Your task to perform on an android device: change notification settings in the gmail app Image 0: 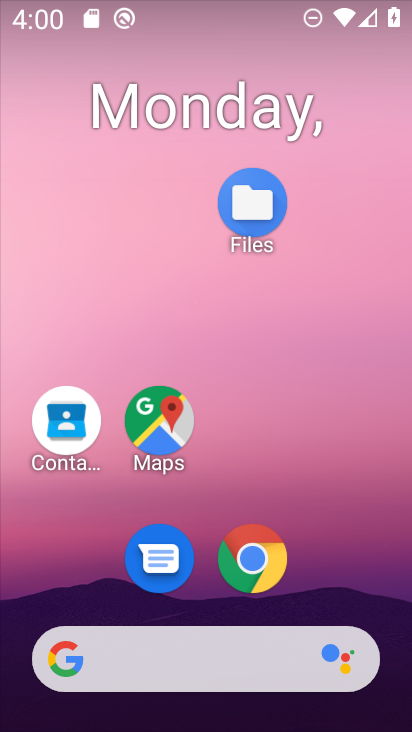
Step 0: drag from (148, 648) to (163, 10)
Your task to perform on an android device: change notification settings in the gmail app Image 1: 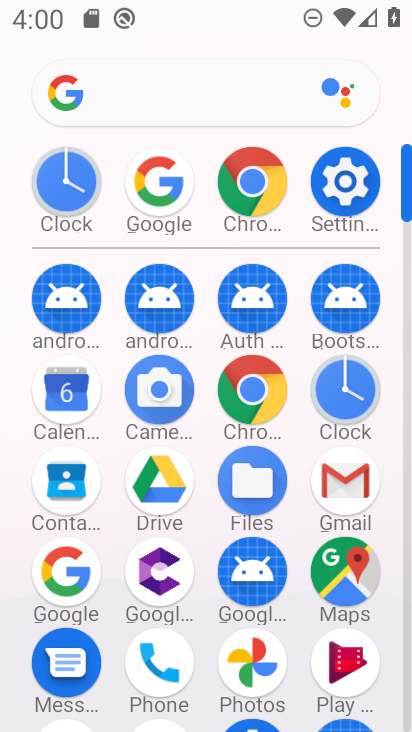
Step 1: click (341, 492)
Your task to perform on an android device: change notification settings in the gmail app Image 2: 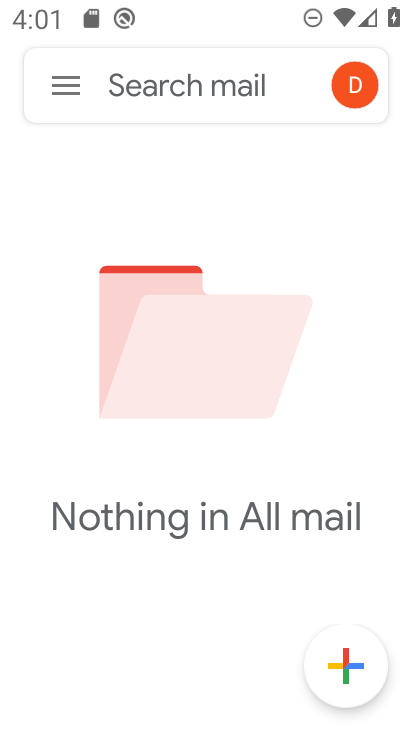
Step 2: click (63, 90)
Your task to perform on an android device: change notification settings in the gmail app Image 3: 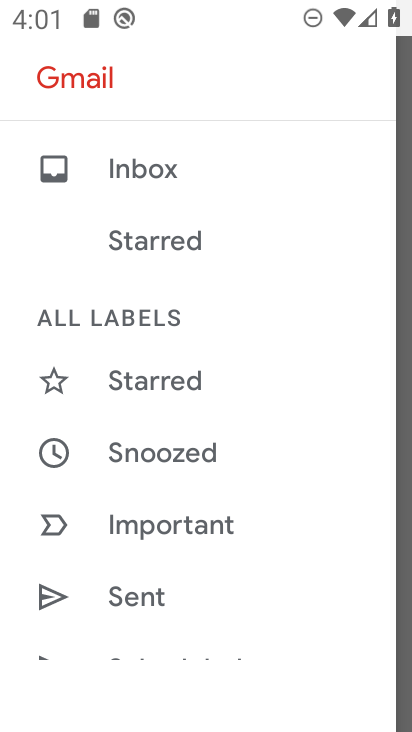
Step 3: drag from (183, 529) to (221, 1)
Your task to perform on an android device: change notification settings in the gmail app Image 4: 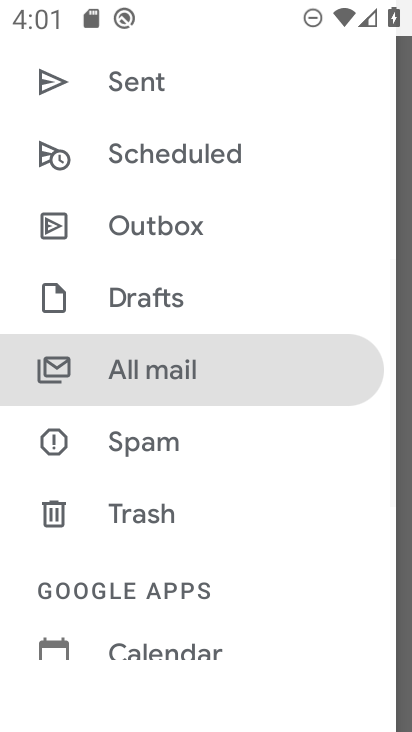
Step 4: drag from (183, 492) to (234, 44)
Your task to perform on an android device: change notification settings in the gmail app Image 5: 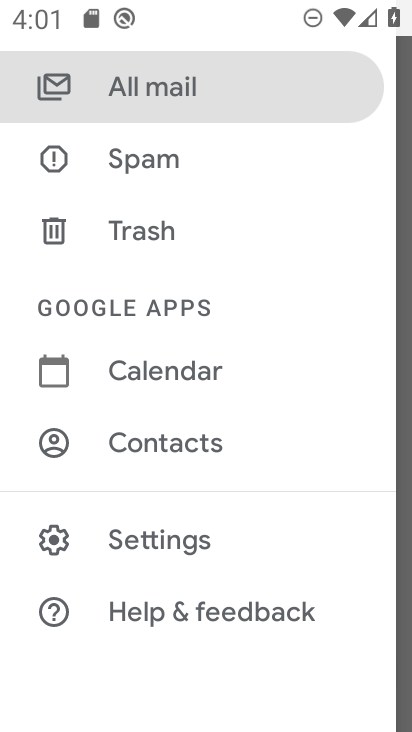
Step 5: click (163, 544)
Your task to perform on an android device: change notification settings in the gmail app Image 6: 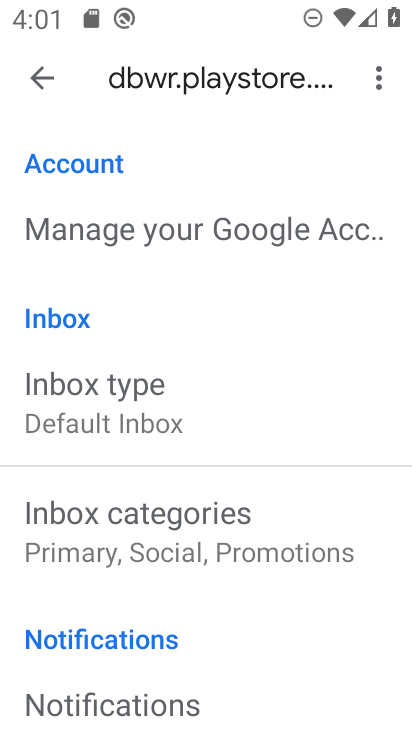
Step 6: click (49, 55)
Your task to perform on an android device: change notification settings in the gmail app Image 7: 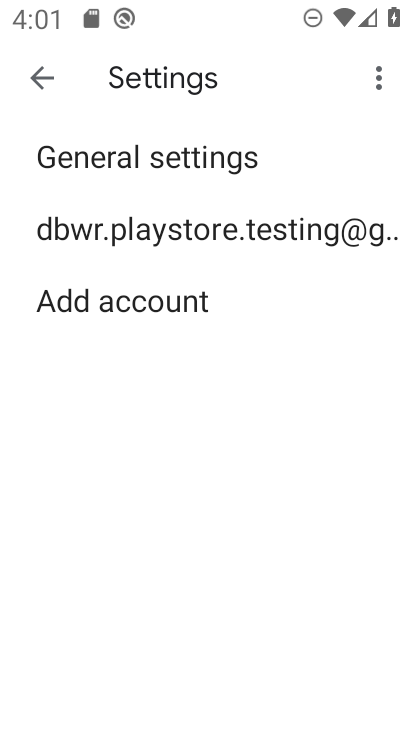
Step 7: click (126, 160)
Your task to perform on an android device: change notification settings in the gmail app Image 8: 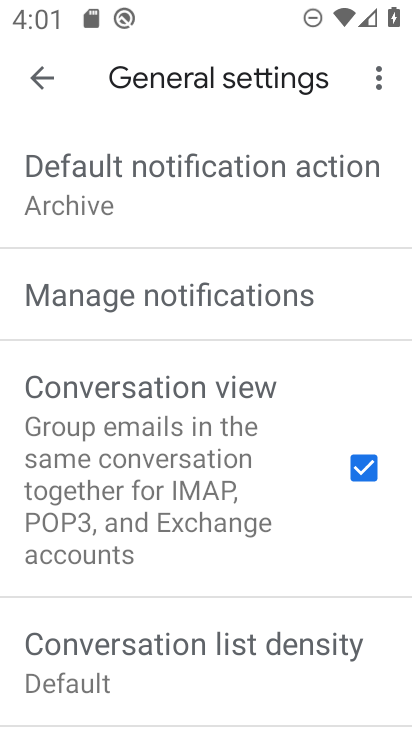
Step 8: click (114, 291)
Your task to perform on an android device: change notification settings in the gmail app Image 9: 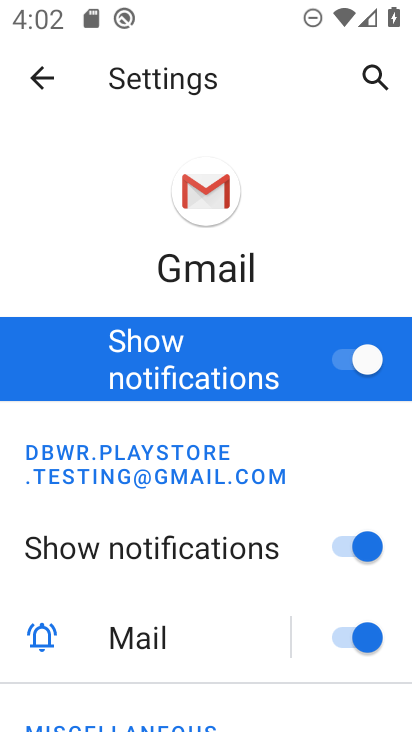
Step 9: click (308, 366)
Your task to perform on an android device: change notification settings in the gmail app Image 10: 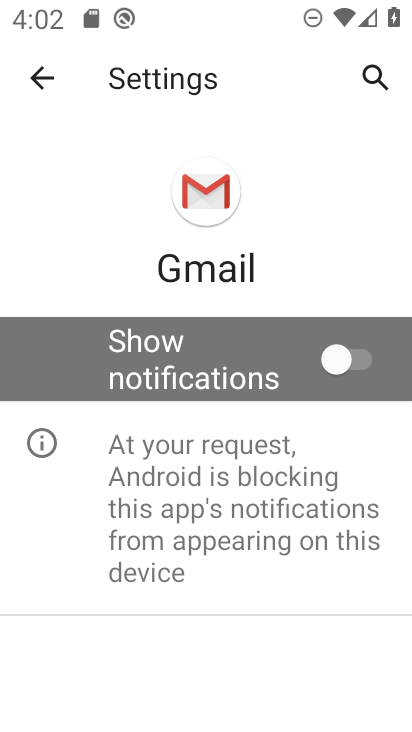
Step 10: task complete